Your task to perform on an android device: toggle show notifications on the lock screen Image 0: 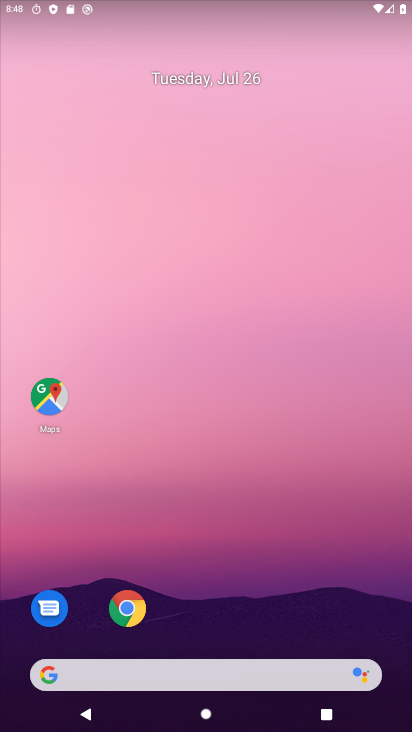
Step 0: drag from (348, 607) to (239, 189)
Your task to perform on an android device: toggle show notifications on the lock screen Image 1: 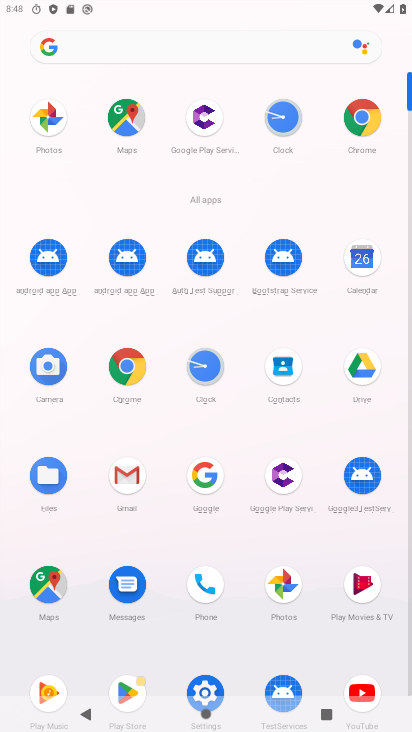
Step 1: click (199, 683)
Your task to perform on an android device: toggle show notifications on the lock screen Image 2: 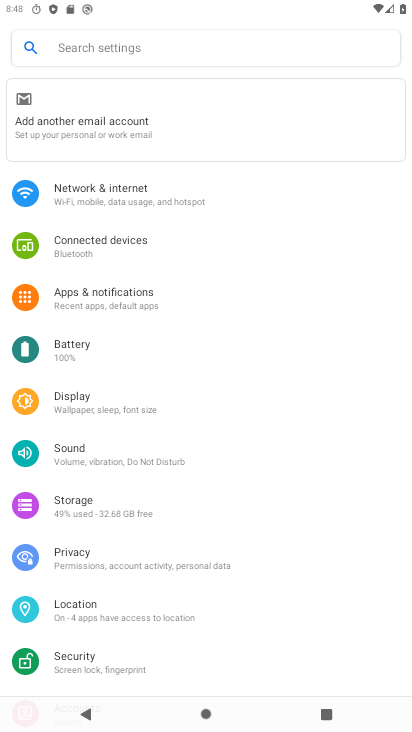
Step 2: click (182, 297)
Your task to perform on an android device: toggle show notifications on the lock screen Image 3: 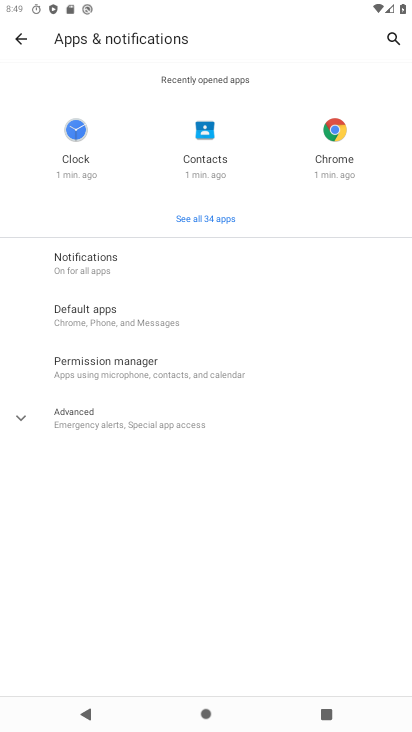
Step 3: click (156, 259)
Your task to perform on an android device: toggle show notifications on the lock screen Image 4: 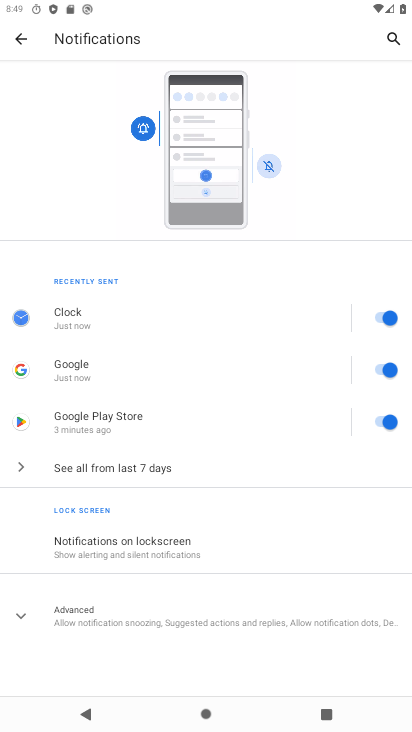
Step 4: click (188, 551)
Your task to perform on an android device: toggle show notifications on the lock screen Image 5: 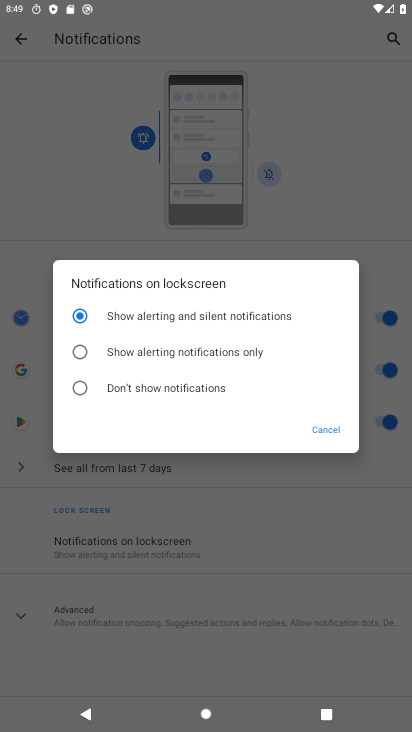
Step 5: click (118, 386)
Your task to perform on an android device: toggle show notifications on the lock screen Image 6: 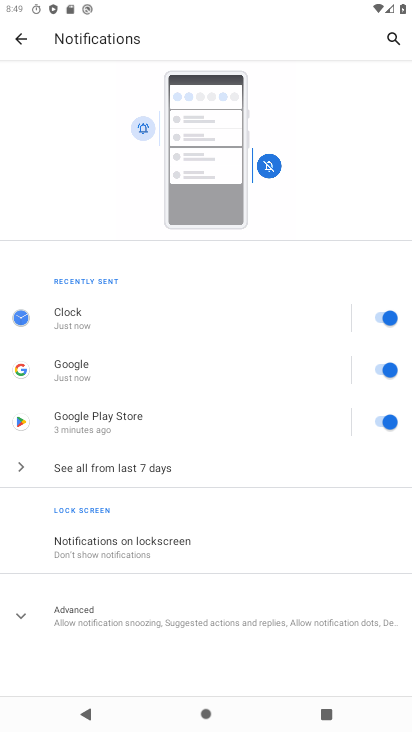
Step 6: task complete